Your task to perform on an android device: Add alienware area 51 to the cart on ebay.com, then select checkout. Image 0: 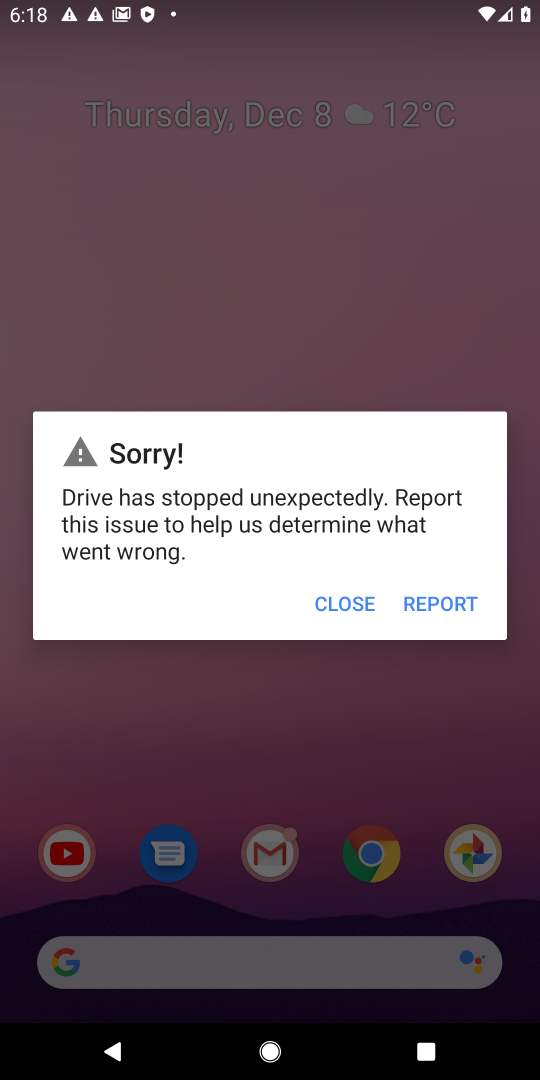
Step 0: press home button
Your task to perform on an android device: Add alienware area 51 to the cart on ebay.com, then select checkout. Image 1: 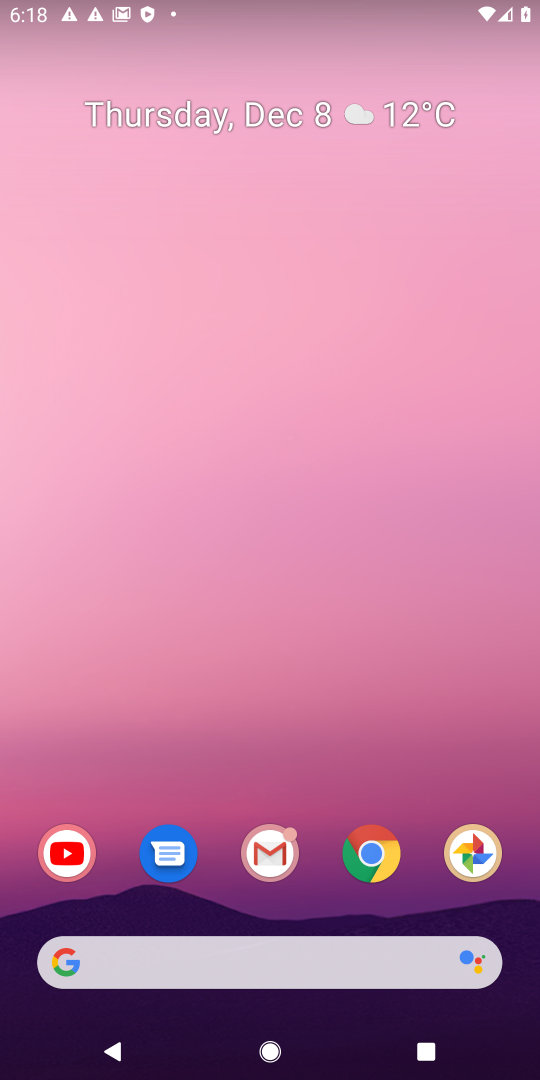
Step 1: click (164, 949)
Your task to perform on an android device: Add alienware area 51 to the cart on ebay.com, then select checkout. Image 2: 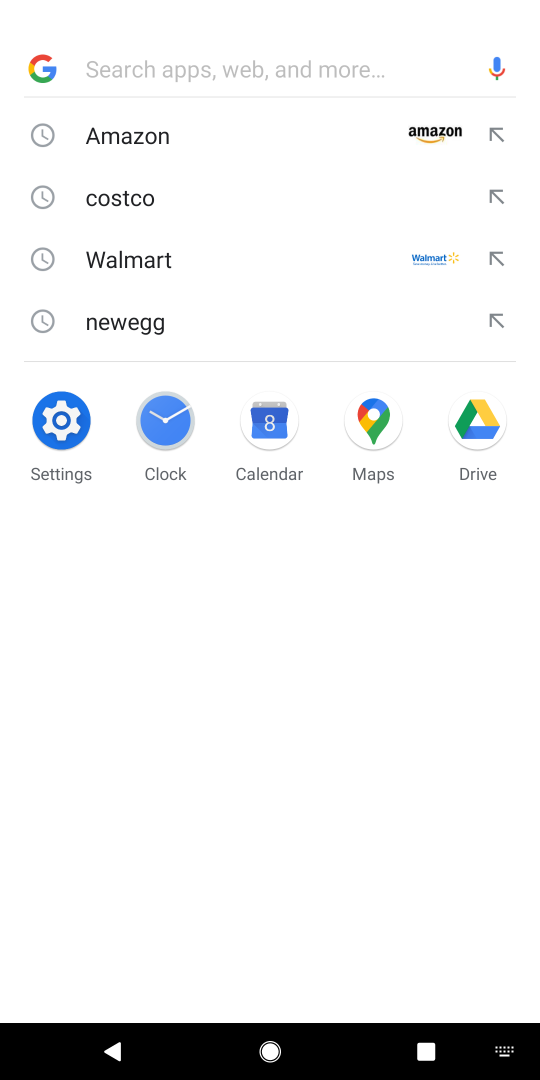
Step 2: type "ebay.com"
Your task to perform on an android device: Add alienware area 51 to the cart on ebay.com, then select checkout. Image 3: 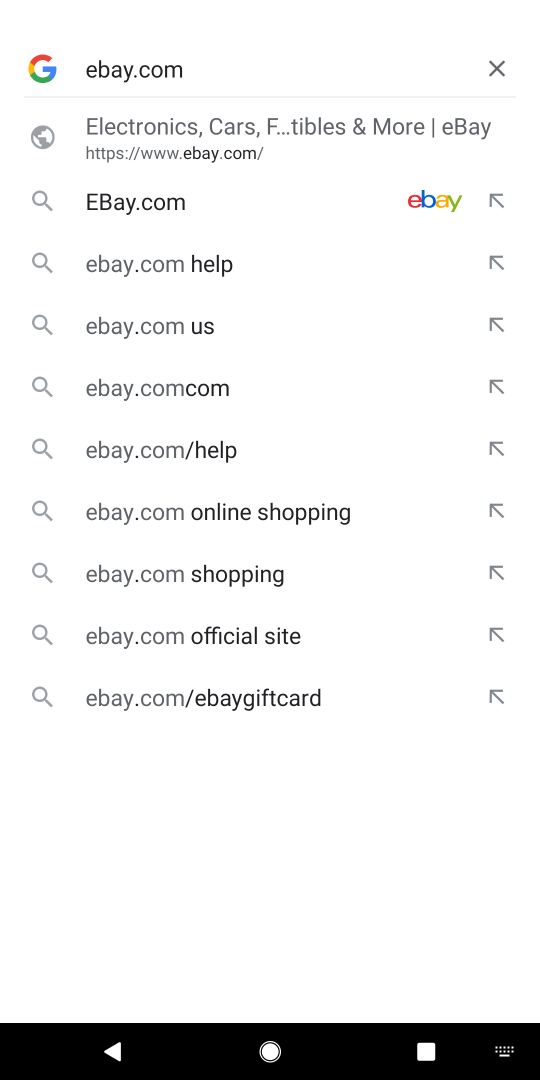
Step 3: click (150, 198)
Your task to perform on an android device: Add alienware area 51 to the cart on ebay.com, then select checkout. Image 4: 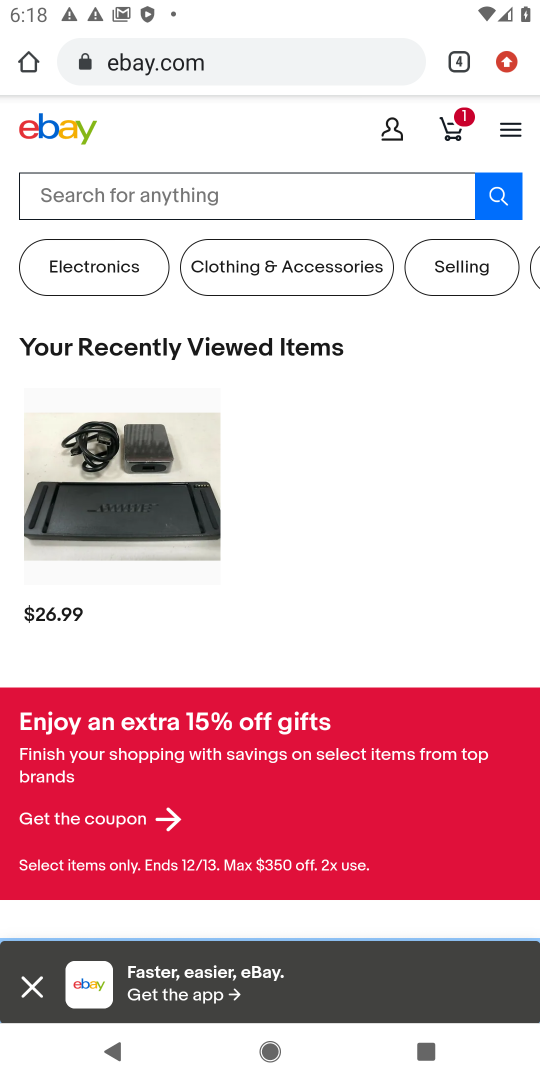
Step 4: click (150, 179)
Your task to perform on an android device: Add alienware area 51 to the cart on ebay.com, then select checkout. Image 5: 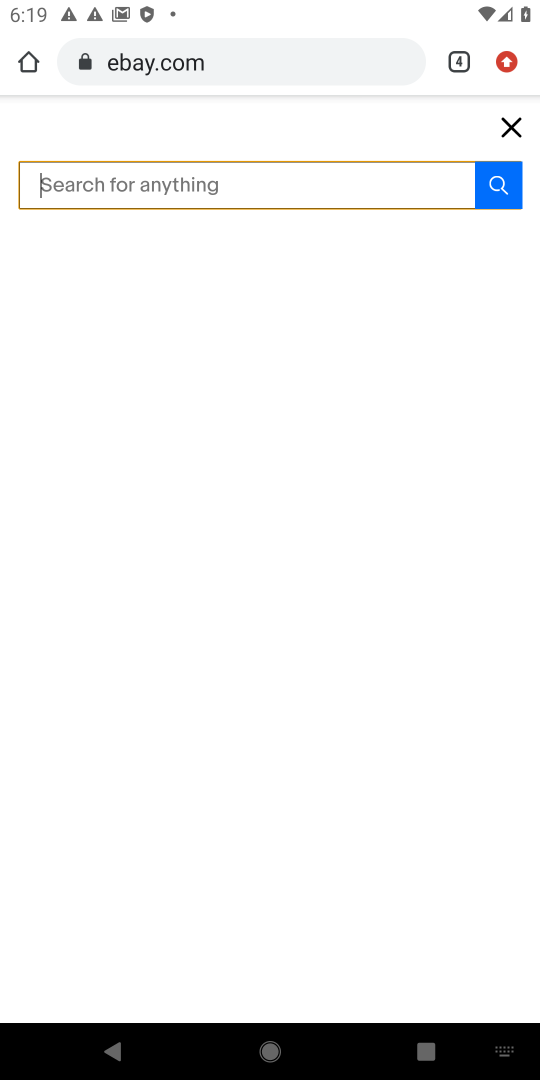
Step 5: type "alienware area 51 "
Your task to perform on an android device: Add alienware area 51 to the cart on ebay.com, then select checkout. Image 6: 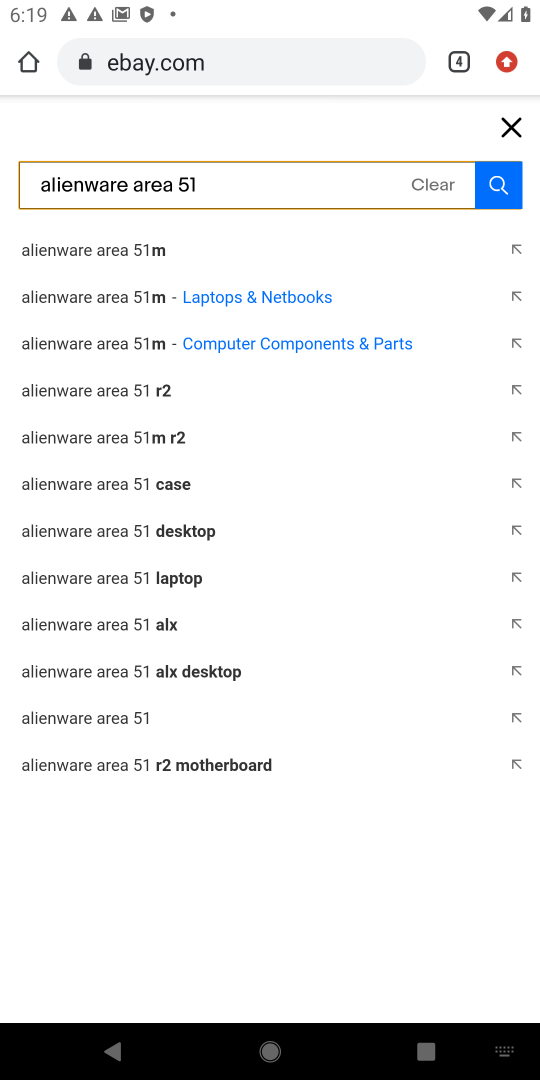
Step 6: click (95, 715)
Your task to perform on an android device: Add alienware area 51 to the cart on ebay.com, then select checkout. Image 7: 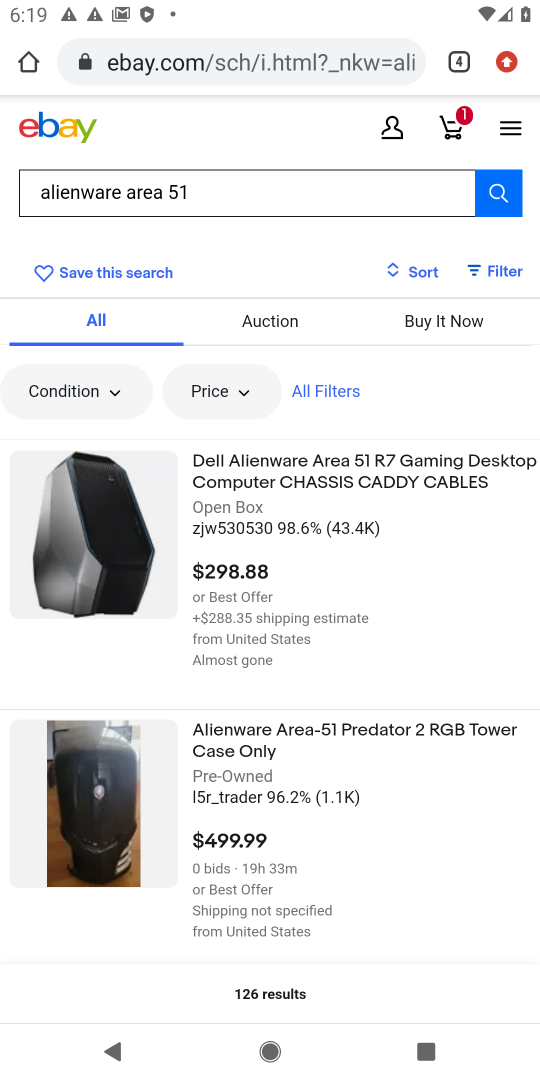
Step 7: click (289, 470)
Your task to perform on an android device: Add alienware area 51 to the cart on ebay.com, then select checkout. Image 8: 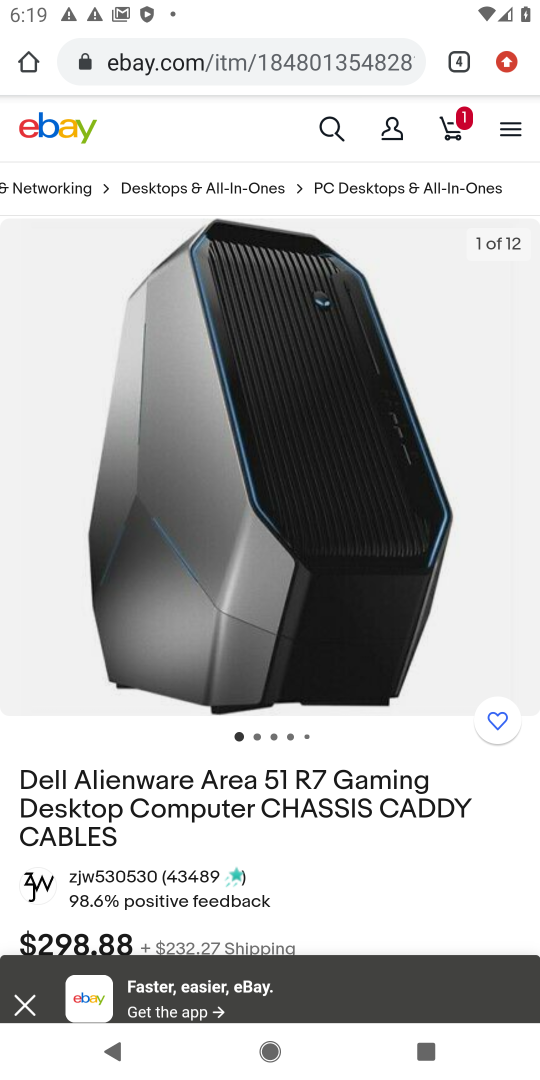
Step 8: drag from (429, 868) to (391, 480)
Your task to perform on an android device: Add alienware area 51 to the cart on ebay.com, then select checkout. Image 9: 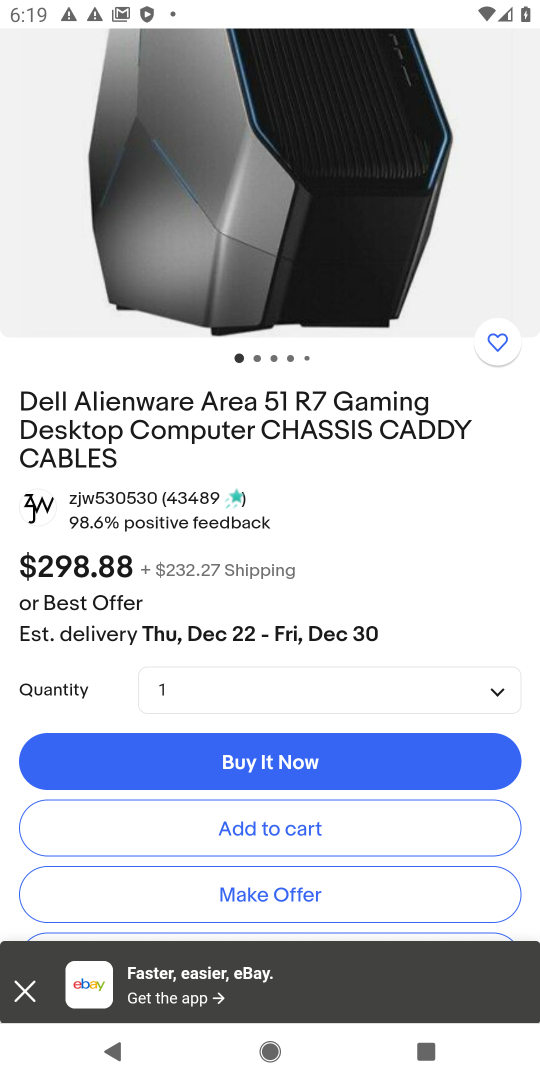
Step 9: click (263, 824)
Your task to perform on an android device: Add alienware area 51 to the cart on ebay.com, then select checkout. Image 10: 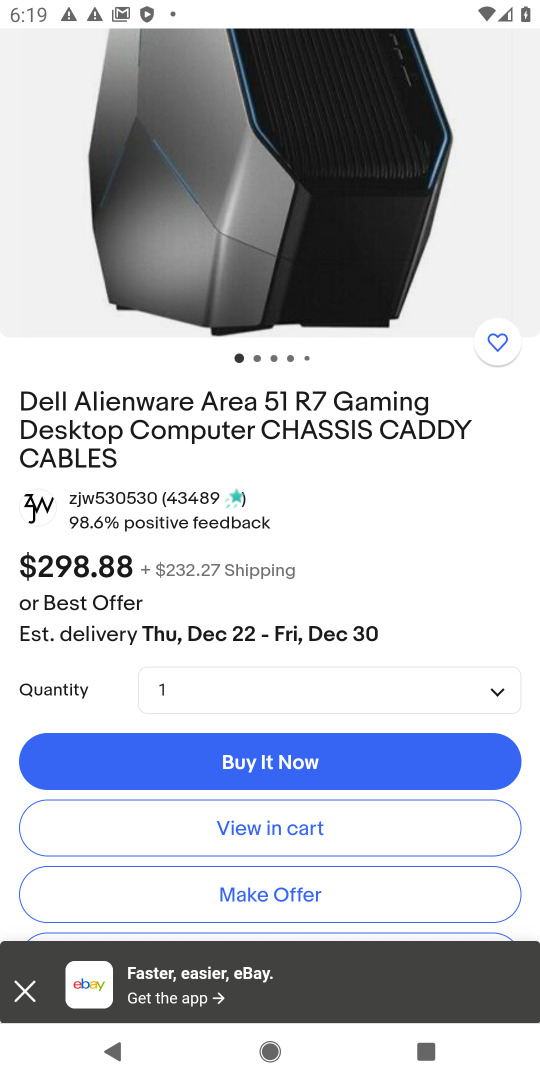
Step 10: click (242, 822)
Your task to perform on an android device: Add alienware area 51 to the cart on ebay.com, then select checkout. Image 11: 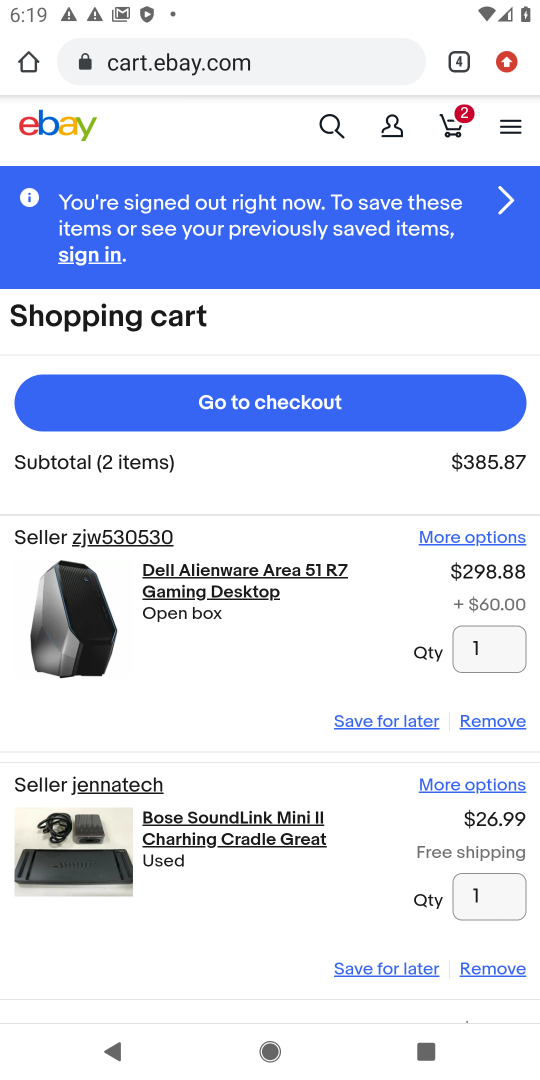
Step 11: click (322, 399)
Your task to perform on an android device: Add alienware area 51 to the cart on ebay.com, then select checkout. Image 12: 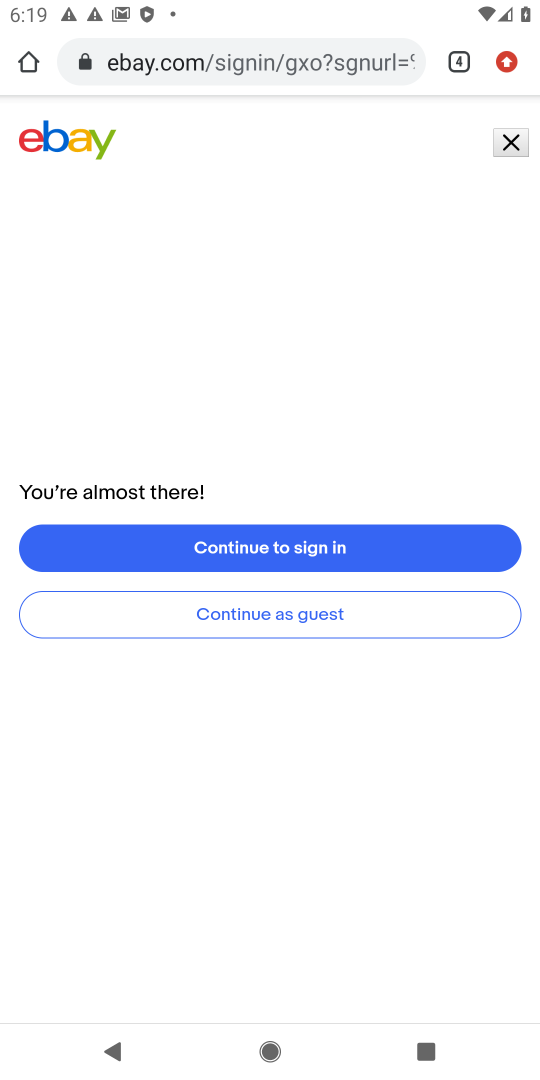
Step 12: task complete